Your task to perform on an android device: What's the weather going to be this weekend? Image 0: 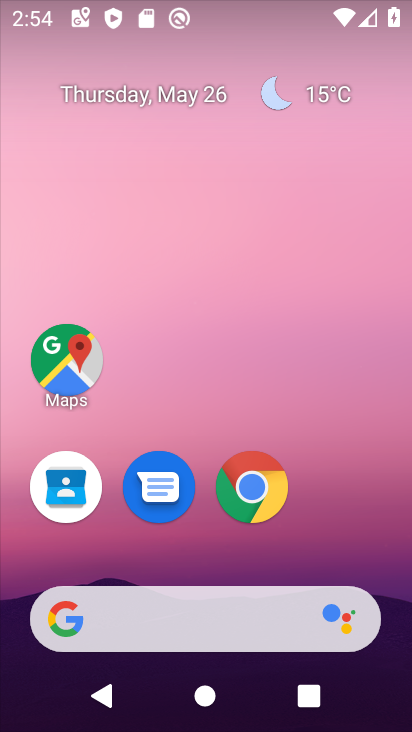
Step 0: drag from (216, 564) to (218, 208)
Your task to perform on an android device: What's the weather going to be this weekend? Image 1: 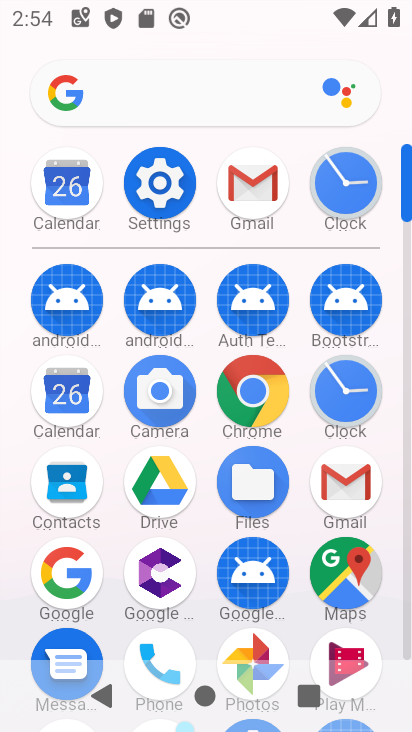
Step 1: click (53, 575)
Your task to perform on an android device: What's the weather going to be this weekend? Image 2: 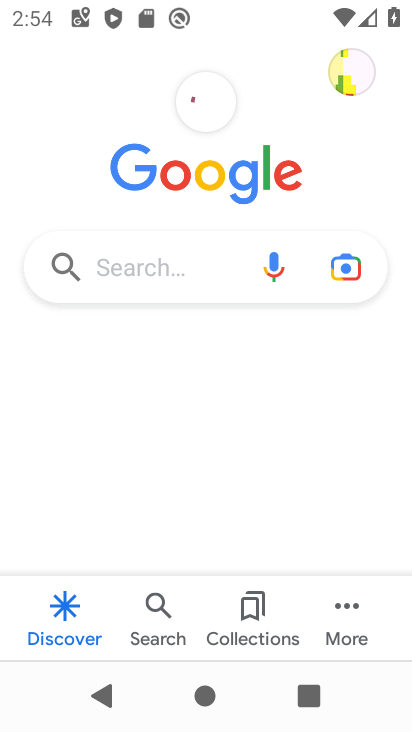
Step 2: click (151, 295)
Your task to perform on an android device: What's the weather going to be this weekend? Image 3: 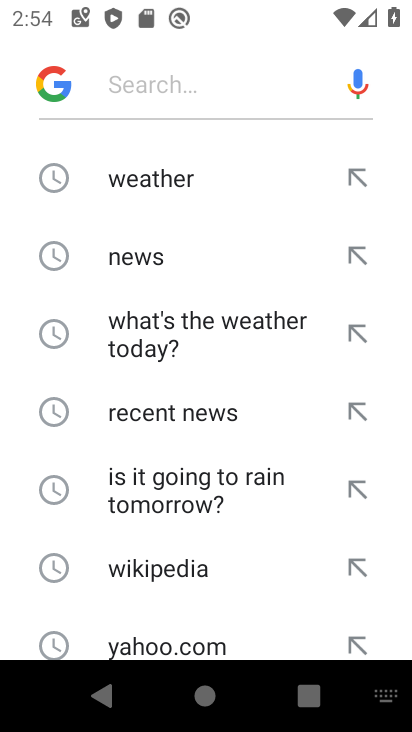
Step 3: click (141, 189)
Your task to perform on an android device: What's the weather going to be this weekend? Image 4: 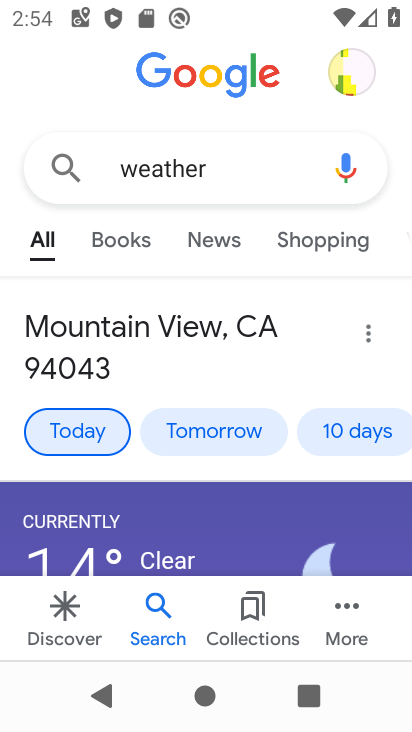
Step 4: drag from (233, 501) to (256, 363)
Your task to perform on an android device: What's the weather going to be this weekend? Image 5: 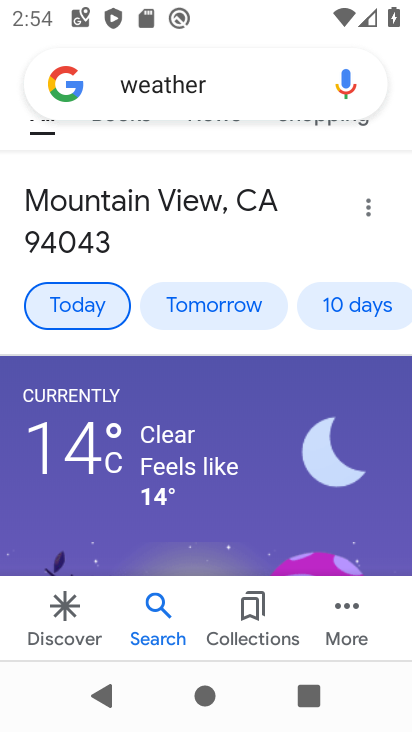
Step 5: click (327, 310)
Your task to perform on an android device: What's the weather going to be this weekend? Image 6: 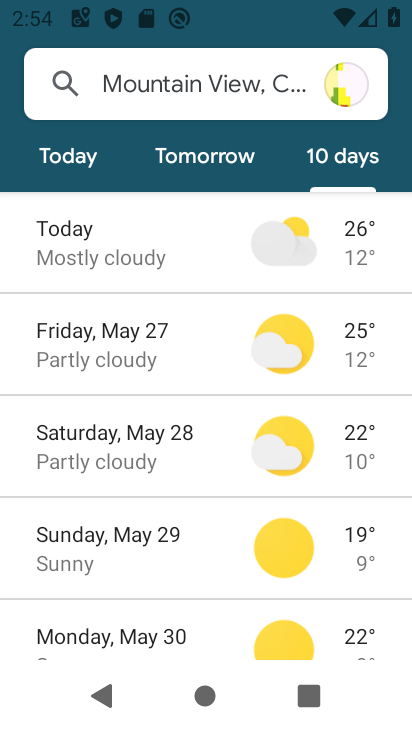
Step 6: task complete